Your task to perform on an android device: turn pop-ups off in chrome Image 0: 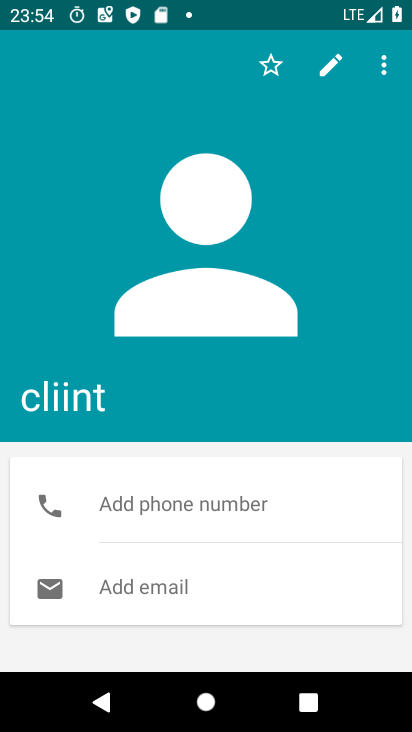
Step 0: press home button
Your task to perform on an android device: turn pop-ups off in chrome Image 1: 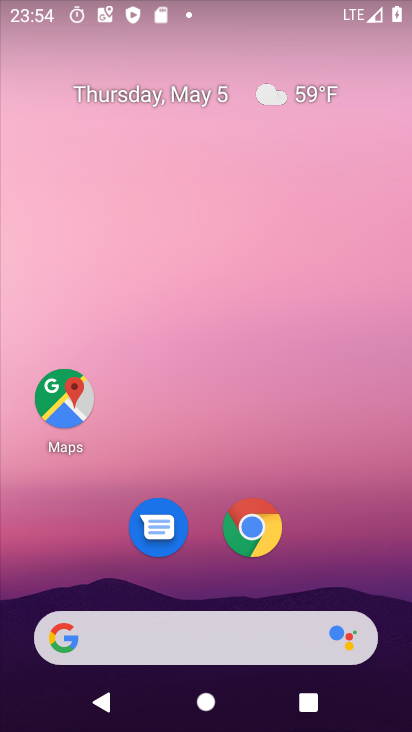
Step 1: click (263, 533)
Your task to perform on an android device: turn pop-ups off in chrome Image 2: 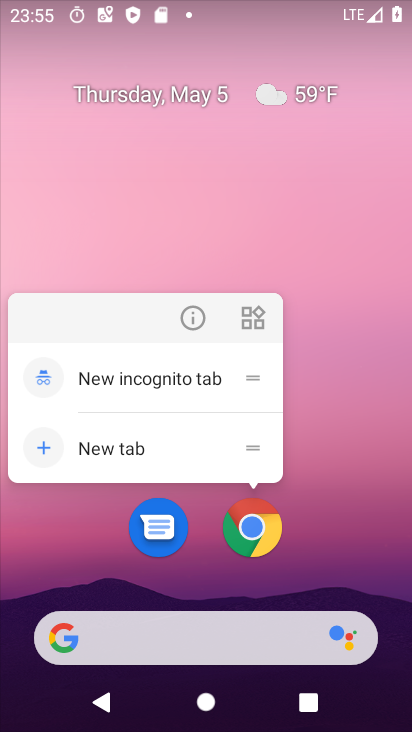
Step 2: click (262, 532)
Your task to perform on an android device: turn pop-ups off in chrome Image 3: 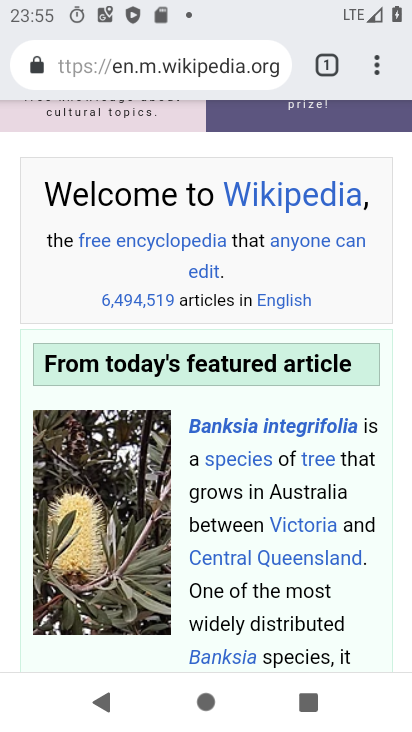
Step 3: click (374, 66)
Your task to perform on an android device: turn pop-ups off in chrome Image 4: 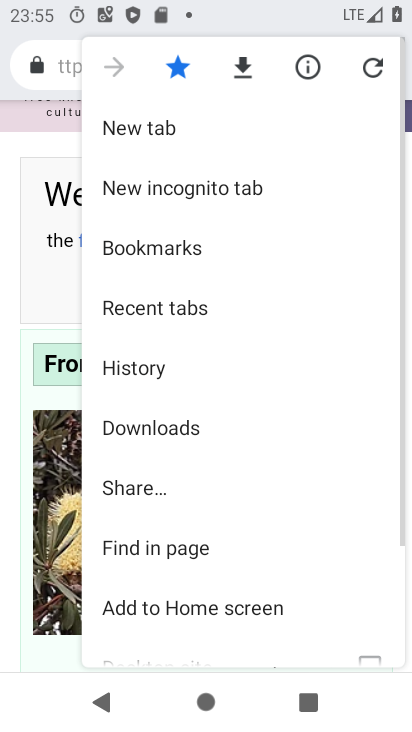
Step 4: drag from (209, 607) to (223, 310)
Your task to perform on an android device: turn pop-ups off in chrome Image 5: 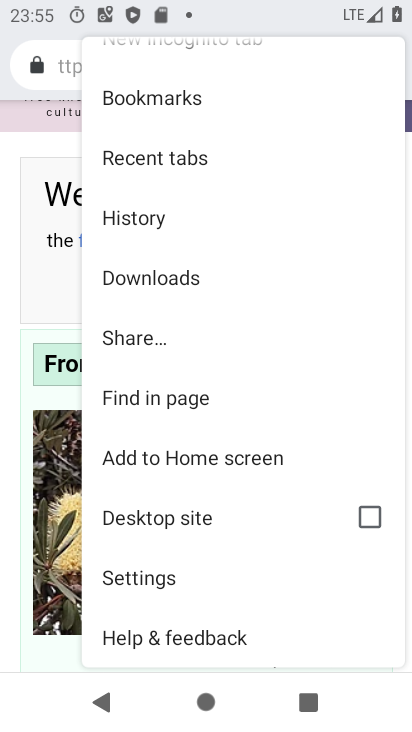
Step 5: click (134, 585)
Your task to perform on an android device: turn pop-ups off in chrome Image 6: 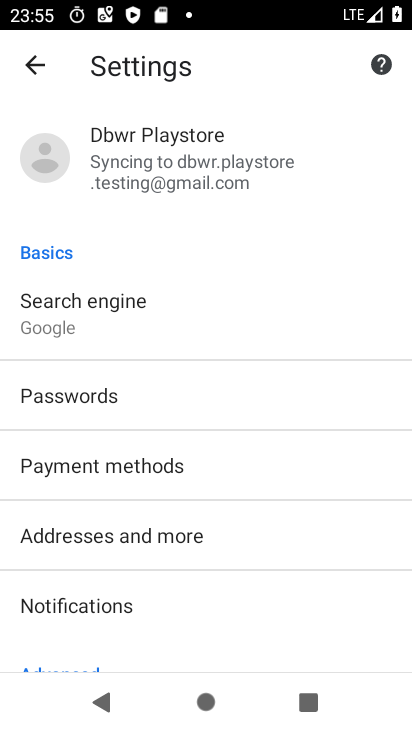
Step 6: drag from (104, 530) to (159, 245)
Your task to perform on an android device: turn pop-ups off in chrome Image 7: 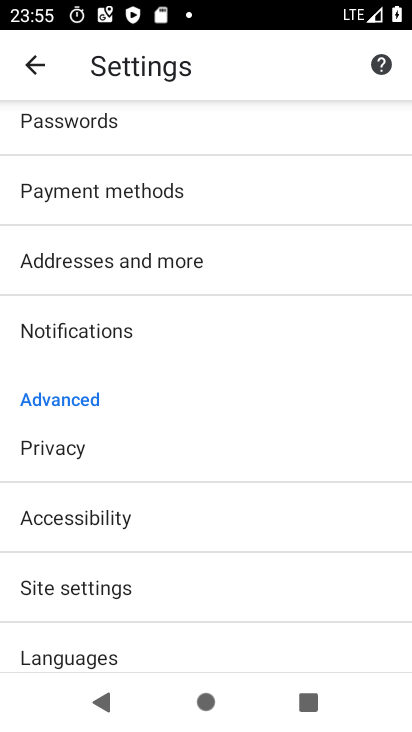
Step 7: drag from (119, 516) to (187, 287)
Your task to perform on an android device: turn pop-ups off in chrome Image 8: 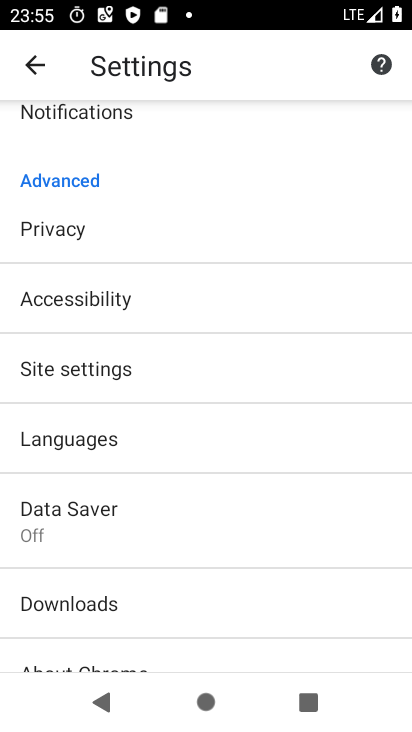
Step 8: click (101, 386)
Your task to perform on an android device: turn pop-ups off in chrome Image 9: 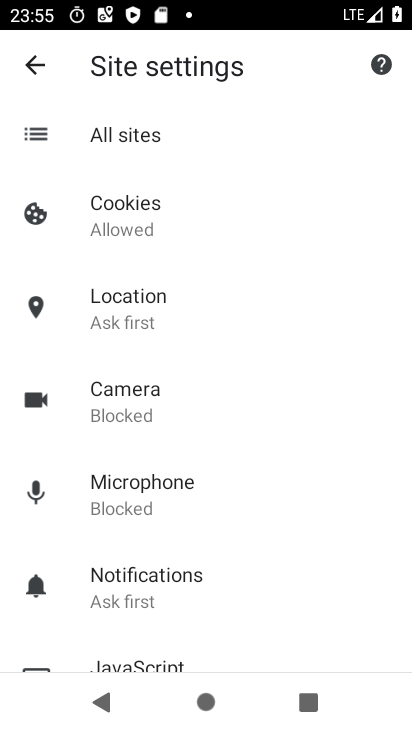
Step 9: drag from (118, 570) to (170, 306)
Your task to perform on an android device: turn pop-ups off in chrome Image 10: 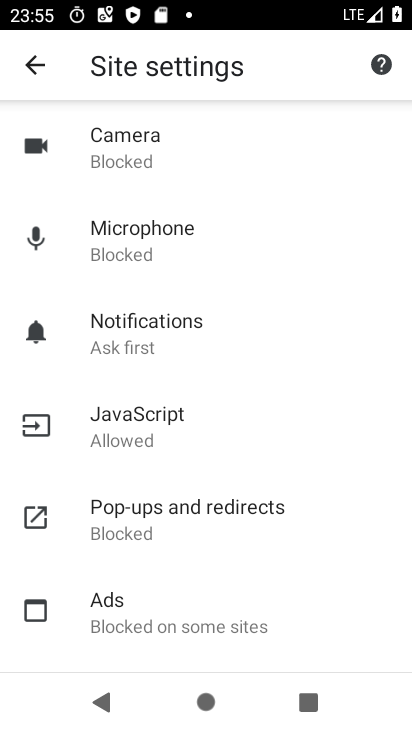
Step 10: click (138, 520)
Your task to perform on an android device: turn pop-ups off in chrome Image 11: 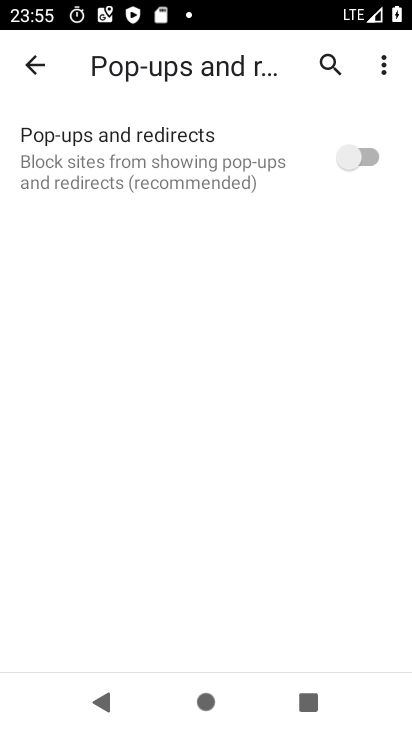
Step 11: task complete